Your task to perform on an android device: open the mobile data screen to see how much data has been used Image 0: 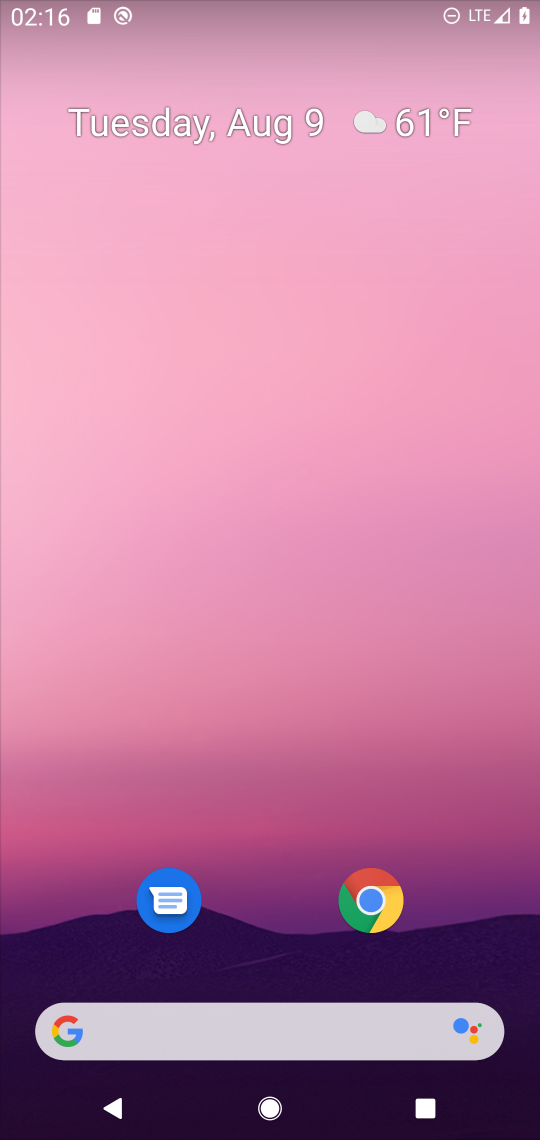
Step 0: press home button
Your task to perform on an android device: open the mobile data screen to see how much data has been used Image 1: 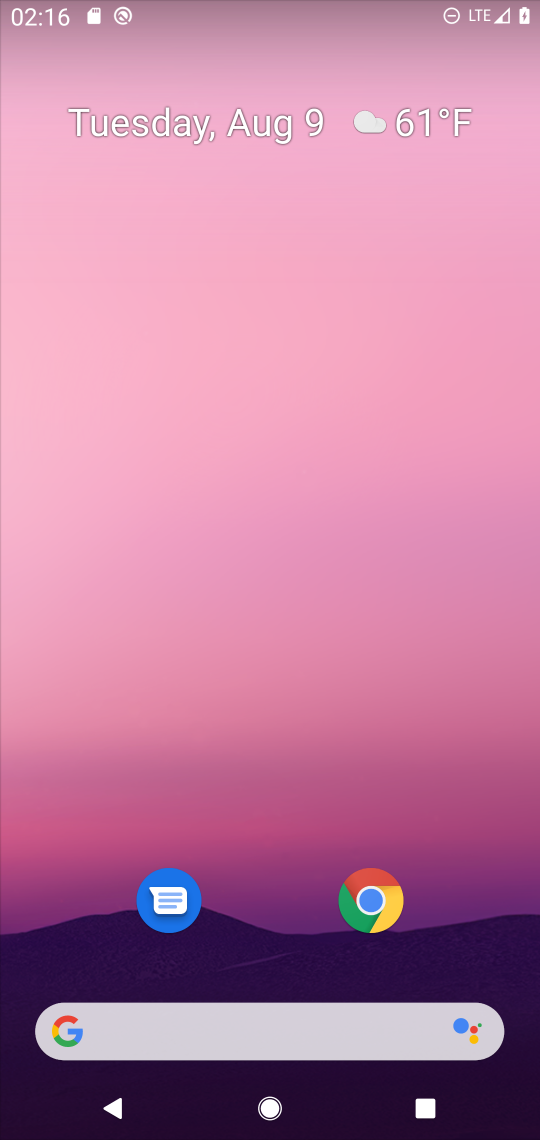
Step 1: drag from (263, 948) to (295, 206)
Your task to perform on an android device: open the mobile data screen to see how much data has been used Image 2: 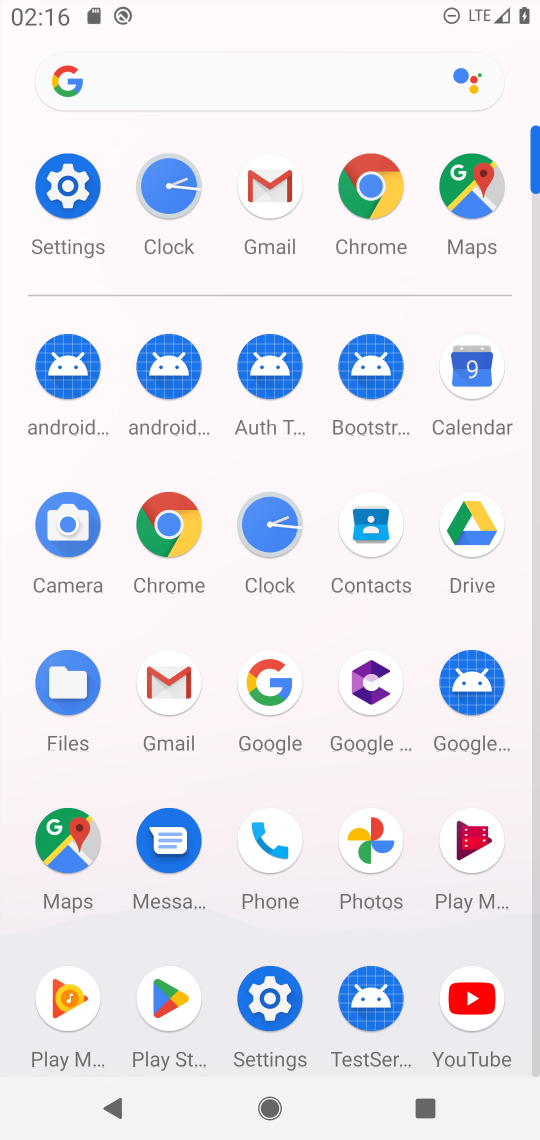
Step 2: click (55, 187)
Your task to perform on an android device: open the mobile data screen to see how much data has been used Image 3: 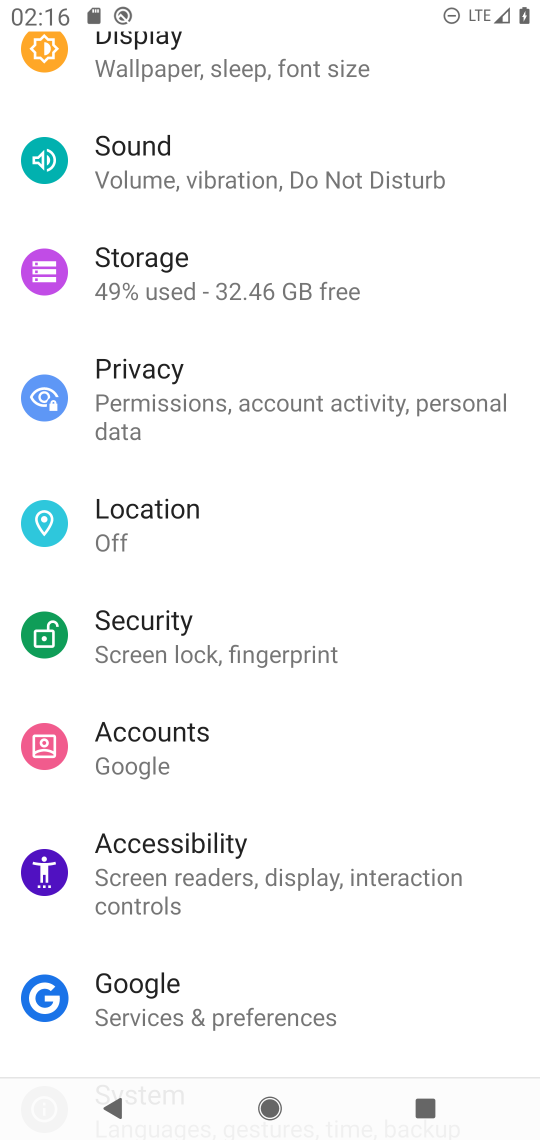
Step 3: drag from (488, 211) to (485, 351)
Your task to perform on an android device: open the mobile data screen to see how much data has been used Image 4: 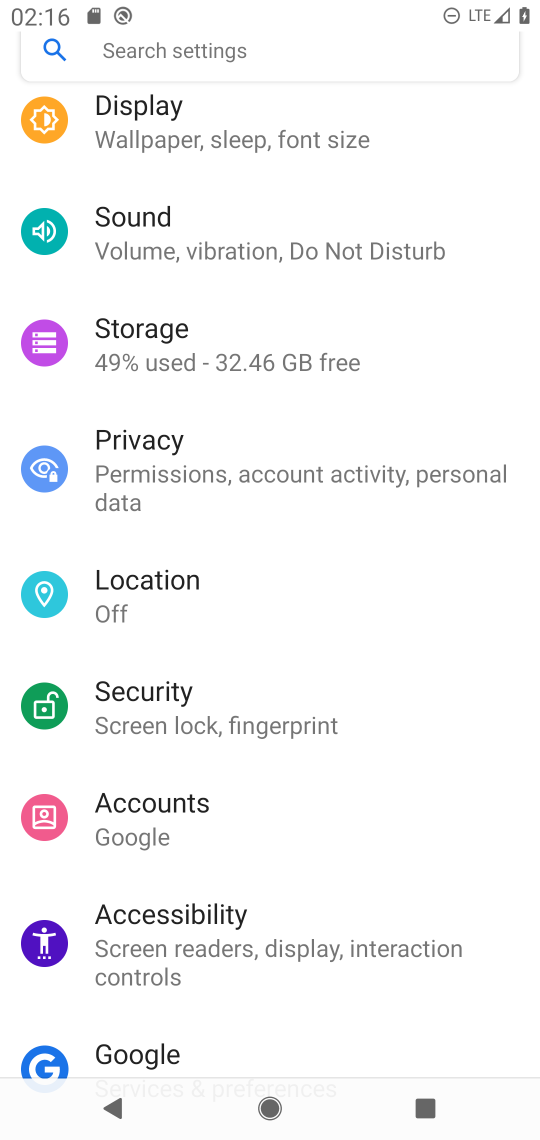
Step 4: drag from (503, 158) to (490, 338)
Your task to perform on an android device: open the mobile data screen to see how much data has been used Image 5: 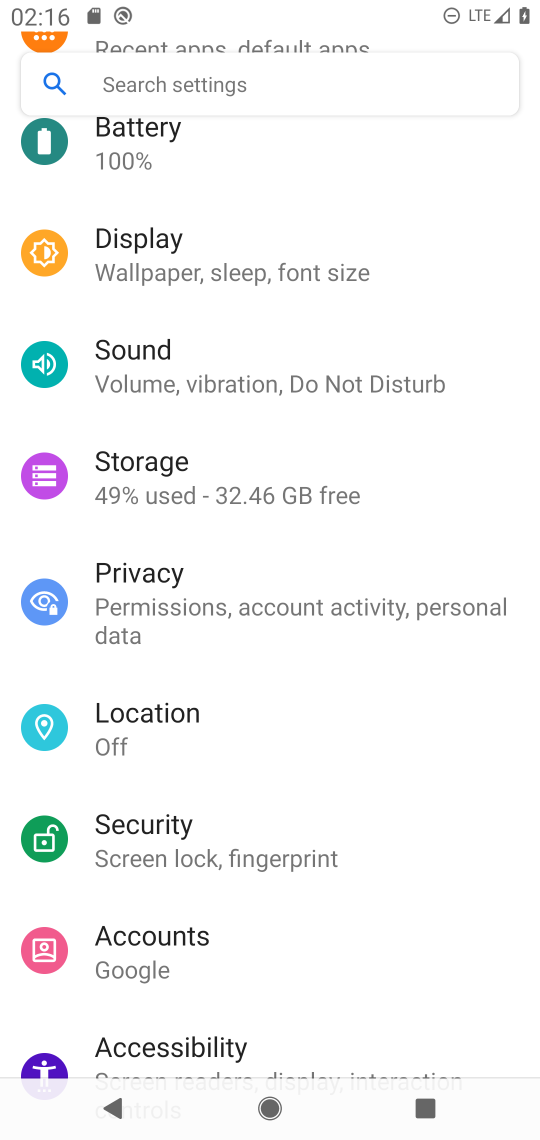
Step 5: drag from (500, 162) to (502, 407)
Your task to perform on an android device: open the mobile data screen to see how much data has been used Image 6: 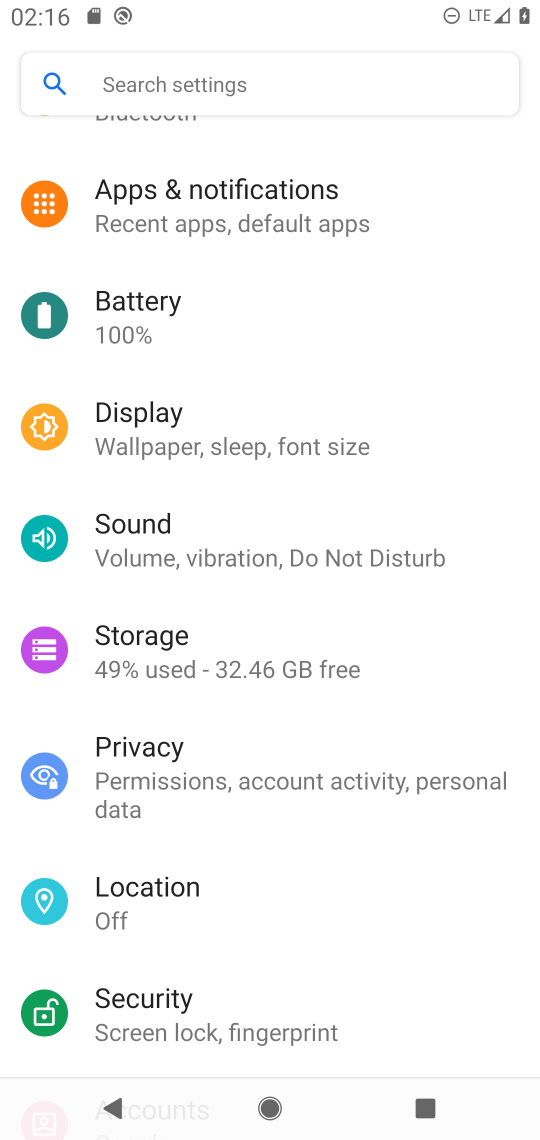
Step 6: drag from (486, 191) to (486, 421)
Your task to perform on an android device: open the mobile data screen to see how much data has been used Image 7: 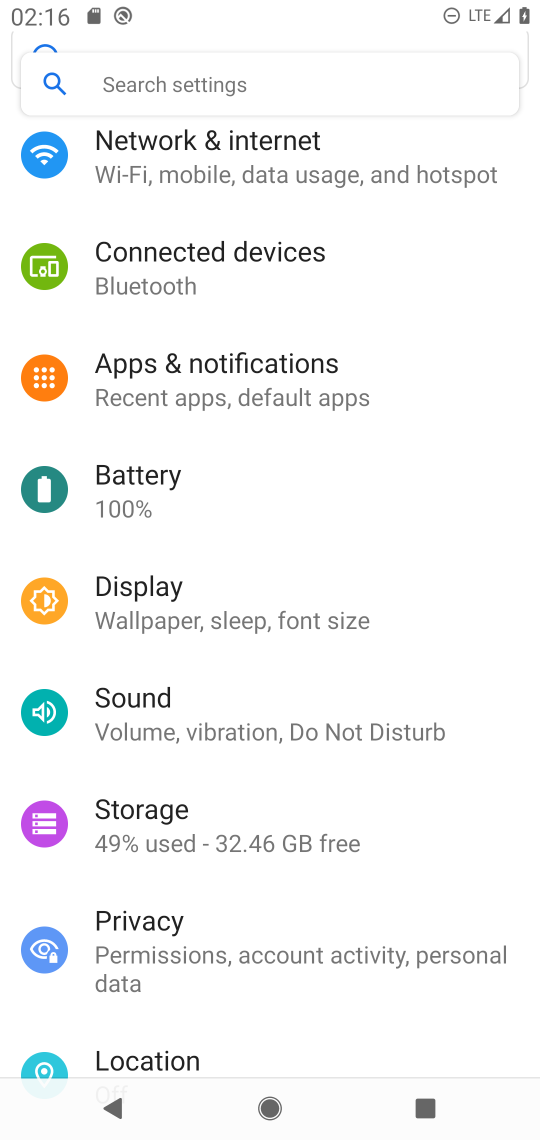
Step 7: drag from (470, 204) to (457, 479)
Your task to perform on an android device: open the mobile data screen to see how much data has been used Image 8: 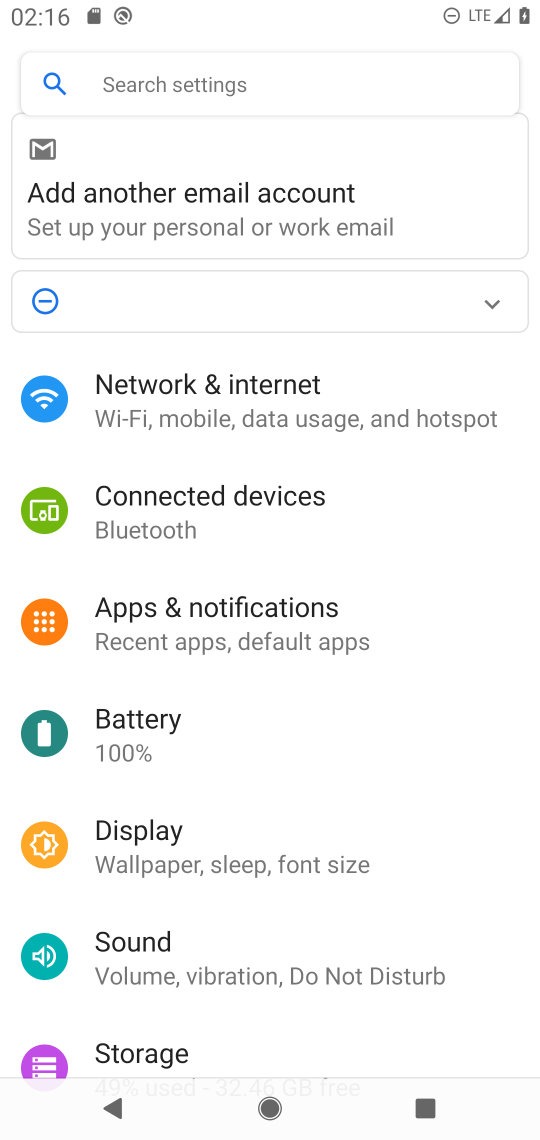
Step 8: drag from (444, 471) to (470, 688)
Your task to perform on an android device: open the mobile data screen to see how much data has been used Image 9: 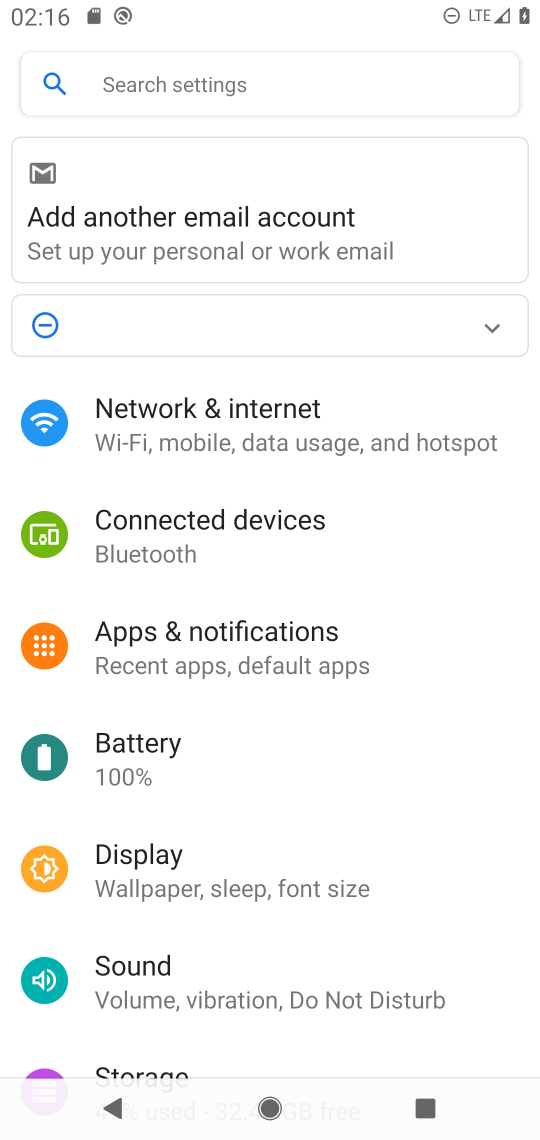
Step 9: click (348, 436)
Your task to perform on an android device: open the mobile data screen to see how much data has been used Image 10: 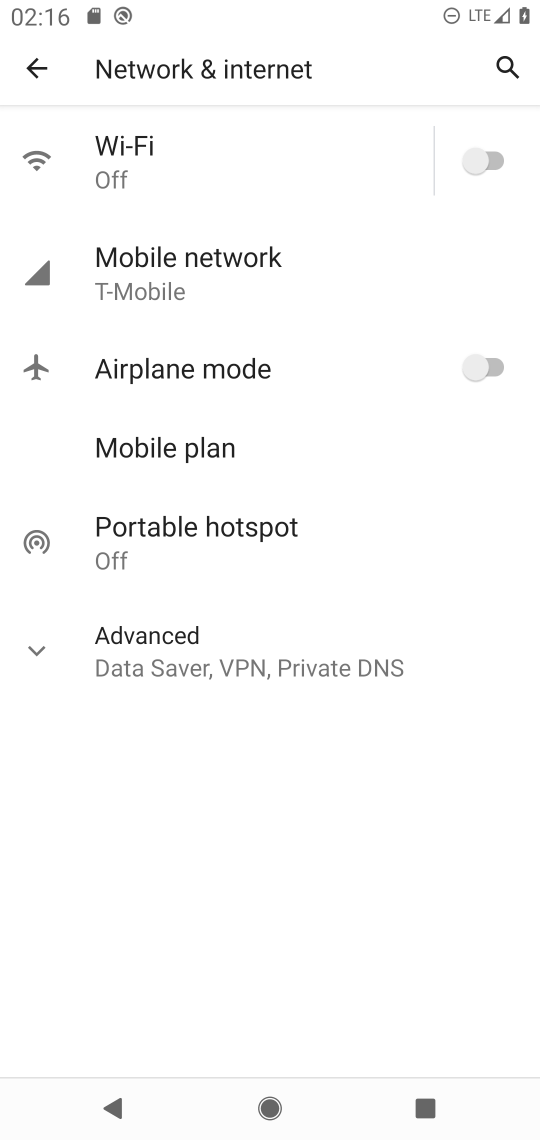
Step 10: click (228, 287)
Your task to perform on an android device: open the mobile data screen to see how much data has been used Image 11: 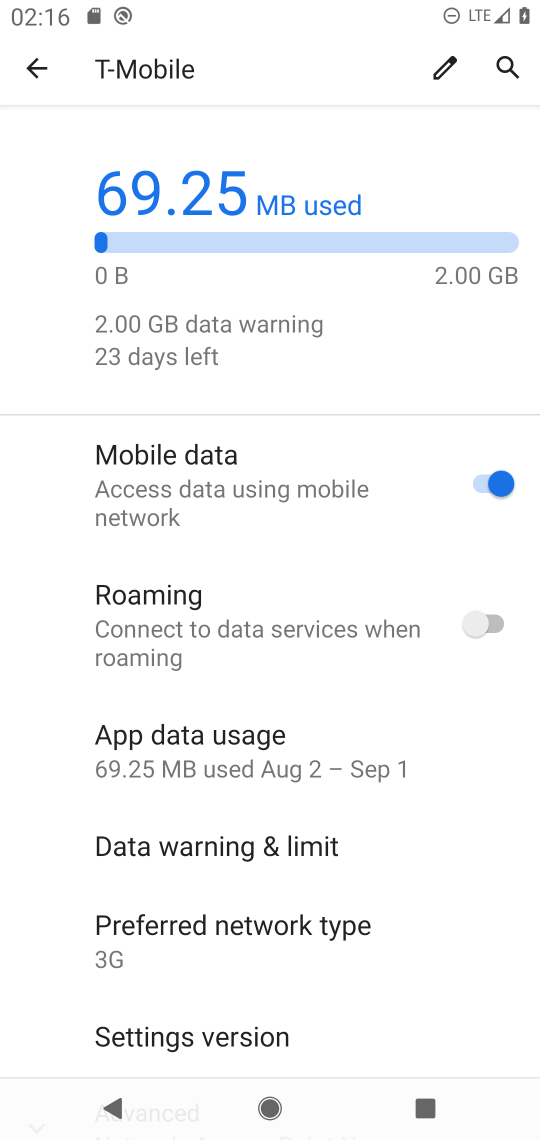
Step 11: drag from (322, 692) to (330, 433)
Your task to perform on an android device: open the mobile data screen to see how much data has been used Image 12: 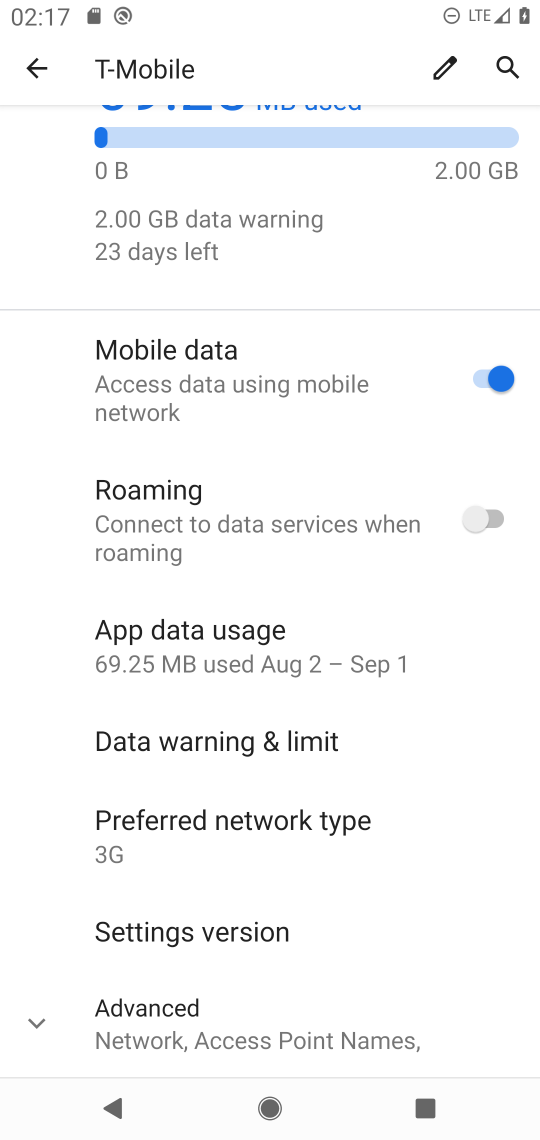
Step 12: click (269, 638)
Your task to perform on an android device: open the mobile data screen to see how much data has been used Image 13: 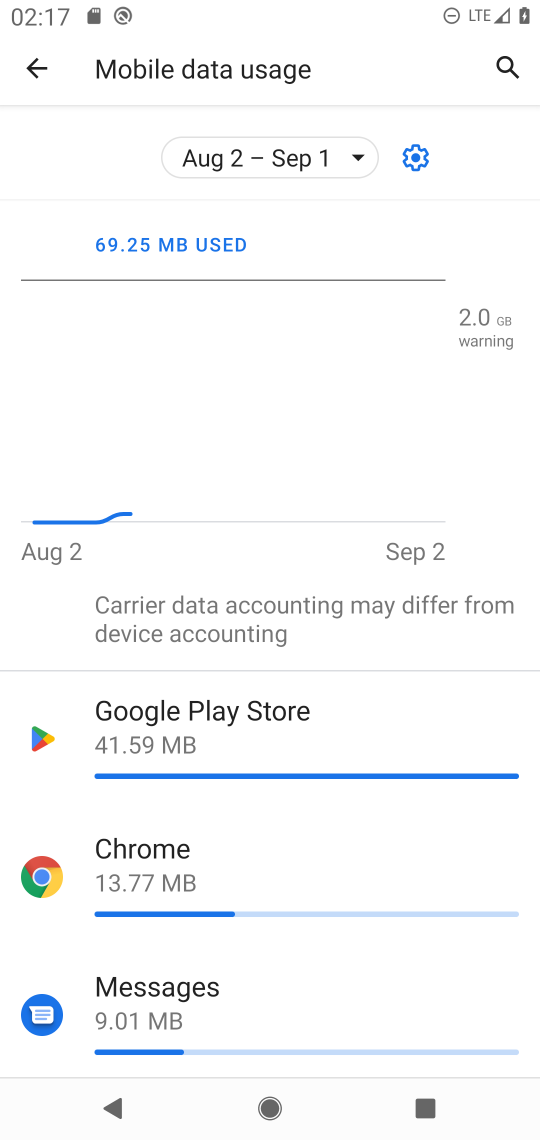
Step 13: task complete